Your task to perform on an android device: Open eBay Image 0: 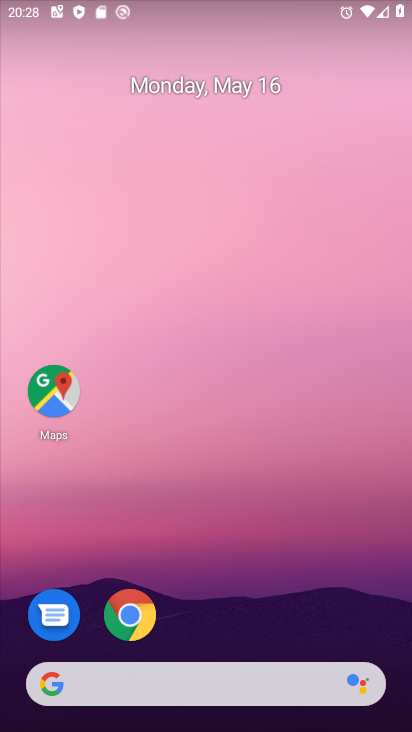
Step 0: click (140, 702)
Your task to perform on an android device: Open eBay Image 1: 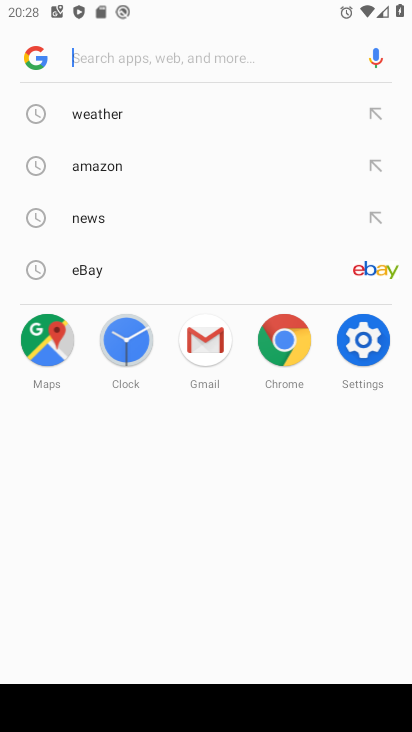
Step 1: click (140, 282)
Your task to perform on an android device: Open eBay Image 2: 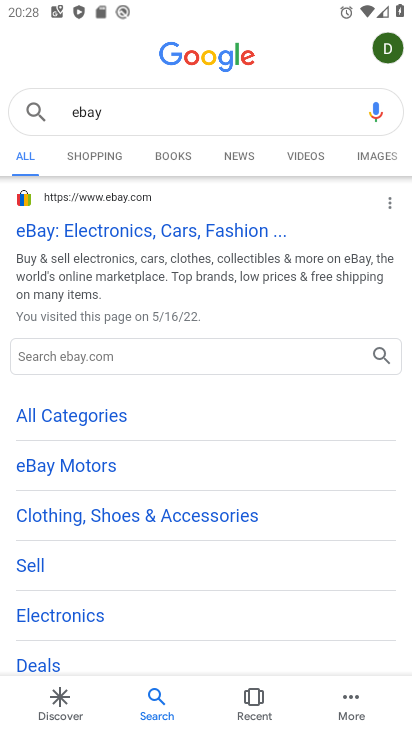
Step 2: task complete